Your task to perform on an android device: Go to Reddit.com Image 0: 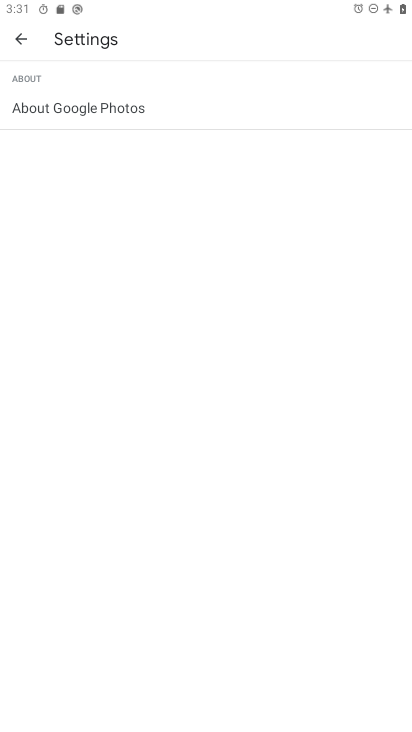
Step 0: press home button
Your task to perform on an android device: Go to Reddit.com Image 1: 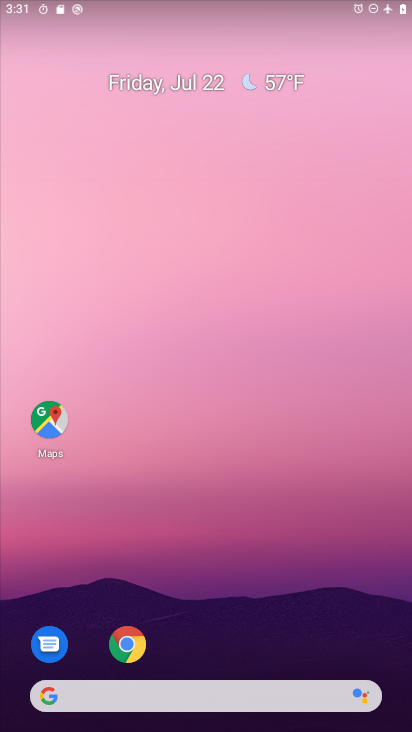
Step 1: click (121, 657)
Your task to perform on an android device: Go to Reddit.com Image 2: 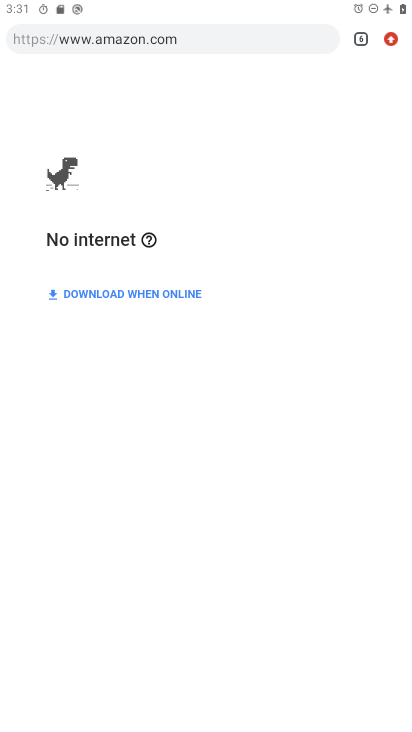
Step 2: task complete